Your task to perform on an android device: set the timer Image 0: 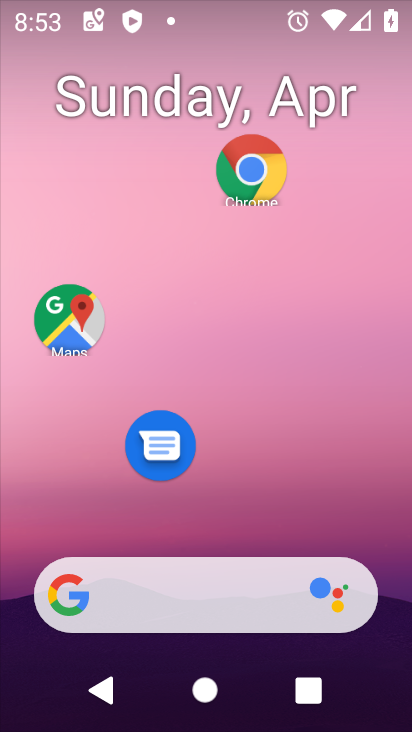
Step 0: press home button
Your task to perform on an android device: set the timer Image 1: 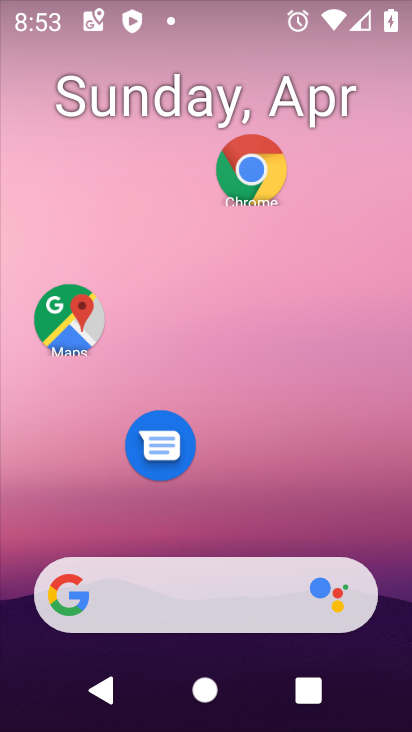
Step 1: press home button
Your task to perform on an android device: set the timer Image 2: 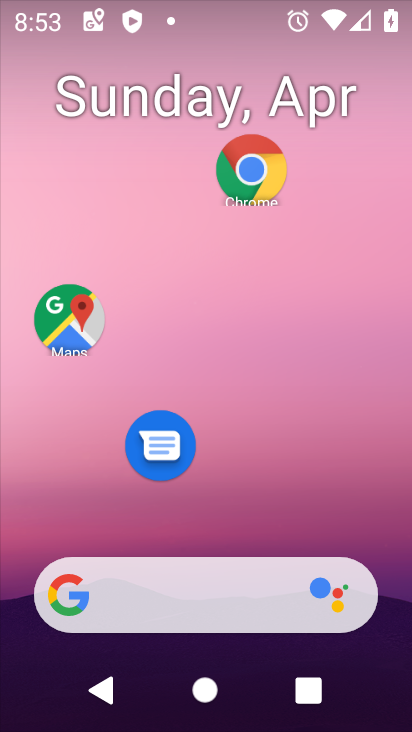
Step 2: drag from (250, 520) to (273, 24)
Your task to perform on an android device: set the timer Image 3: 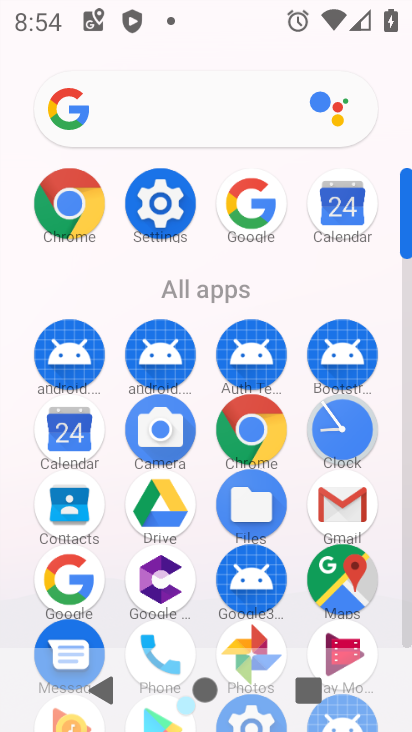
Step 3: drag from (203, 617) to (190, 323)
Your task to perform on an android device: set the timer Image 4: 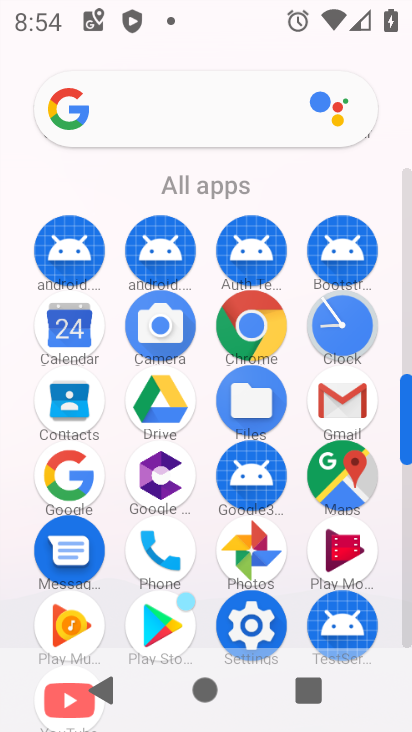
Step 4: click (339, 334)
Your task to perform on an android device: set the timer Image 5: 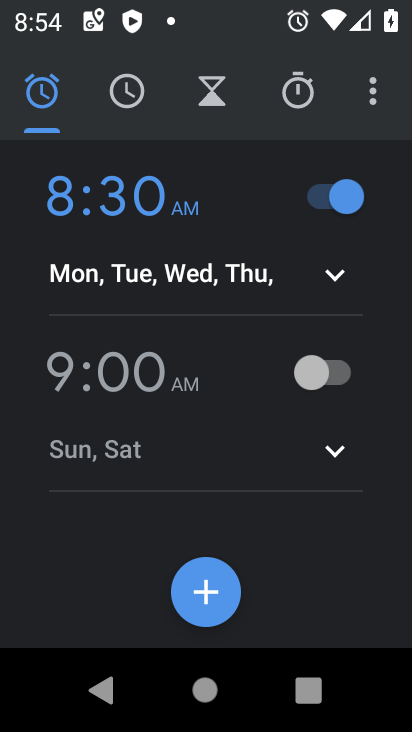
Step 5: click (210, 90)
Your task to perform on an android device: set the timer Image 6: 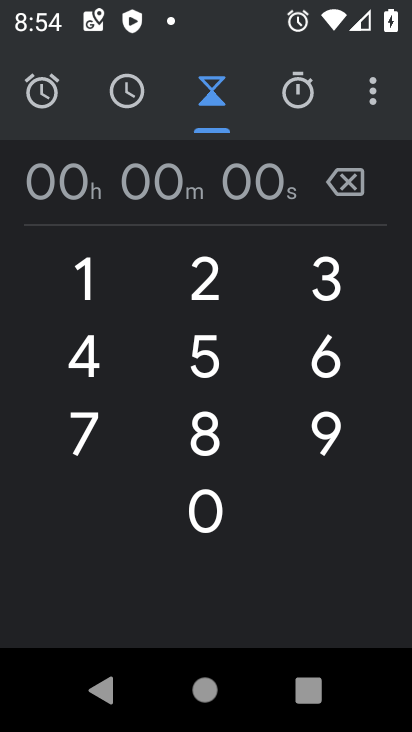
Step 6: click (208, 277)
Your task to perform on an android device: set the timer Image 7: 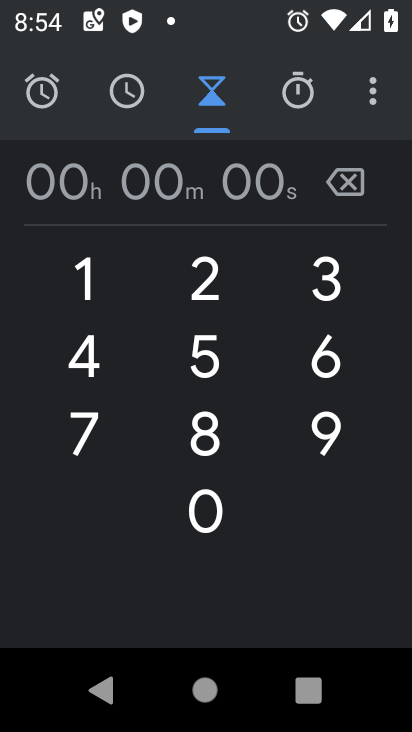
Step 7: click (208, 277)
Your task to perform on an android device: set the timer Image 8: 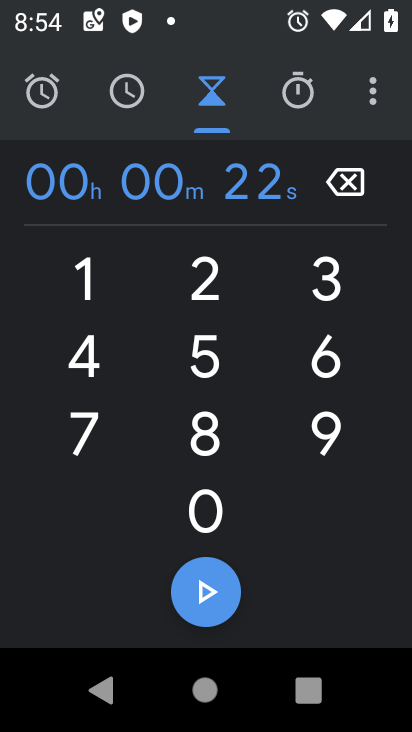
Step 8: task complete